Your task to perform on an android device: When is my next meeting? Image 0: 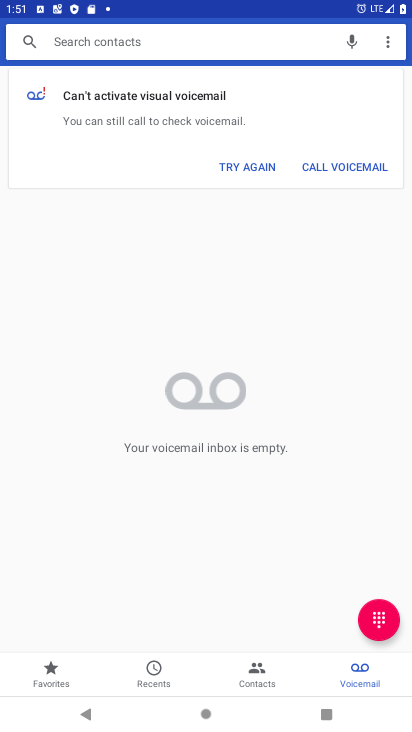
Step 0: press home button
Your task to perform on an android device: When is my next meeting? Image 1: 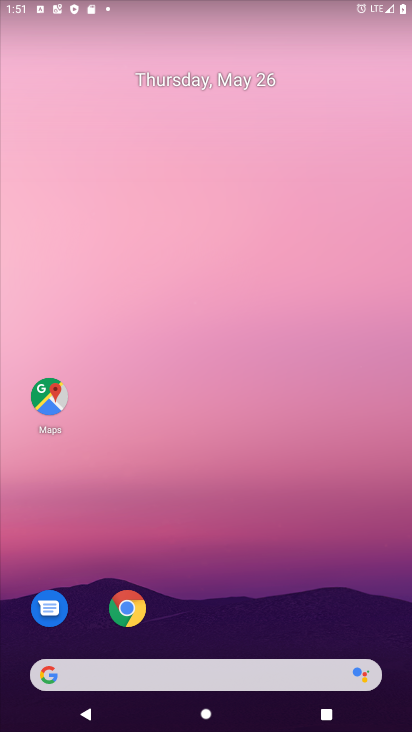
Step 1: drag from (349, 602) to (267, 93)
Your task to perform on an android device: When is my next meeting? Image 2: 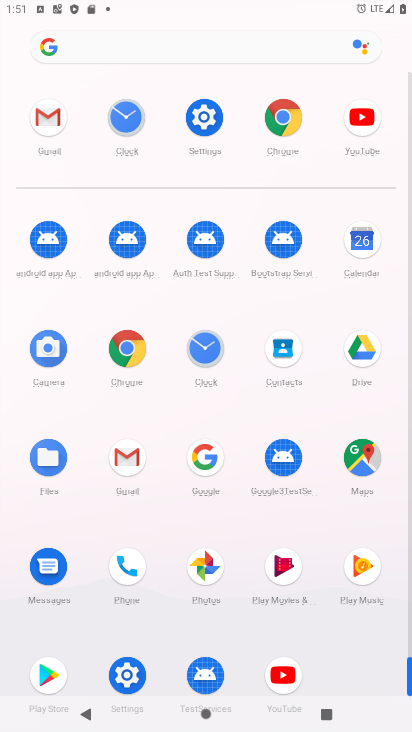
Step 2: click (364, 238)
Your task to perform on an android device: When is my next meeting? Image 3: 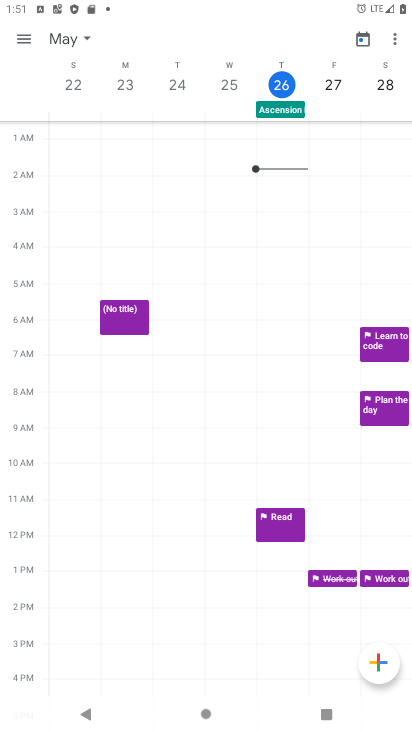
Step 3: click (19, 32)
Your task to perform on an android device: When is my next meeting? Image 4: 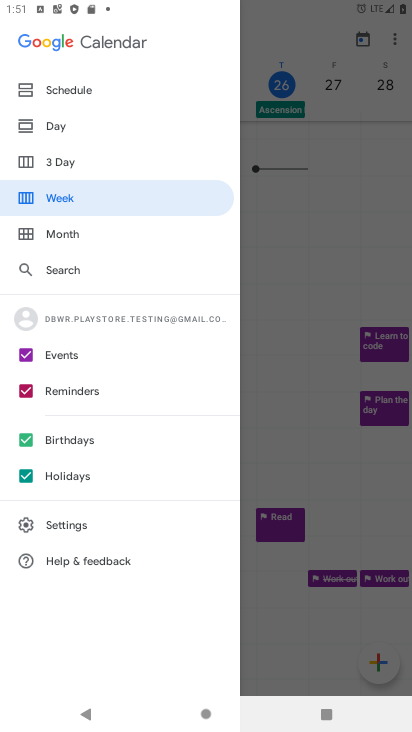
Step 4: click (50, 90)
Your task to perform on an android device: When is my next meeting? Image 5: 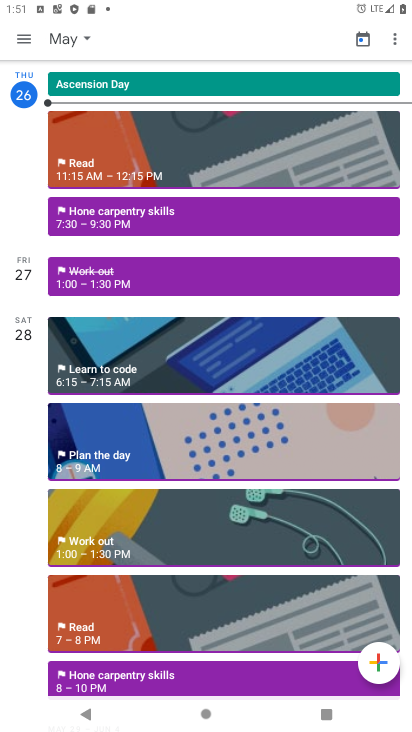
Step 5: task complete